Your task to perform on an android device: check data usage Image 0: 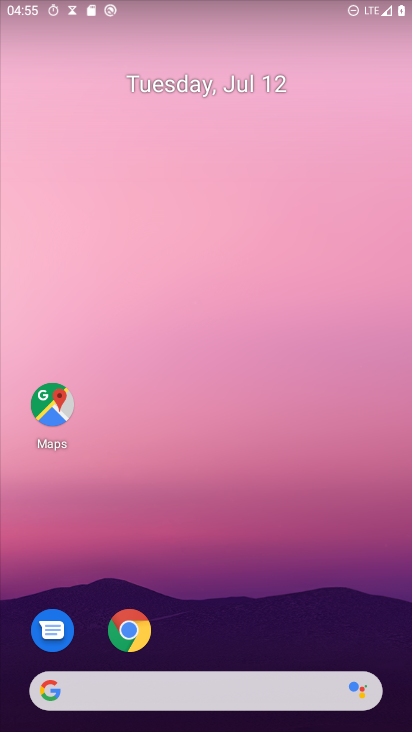
Step 0: drag from (310, 57) to (314, 16)
Your task to perform on an android device: check data usage Image 1: 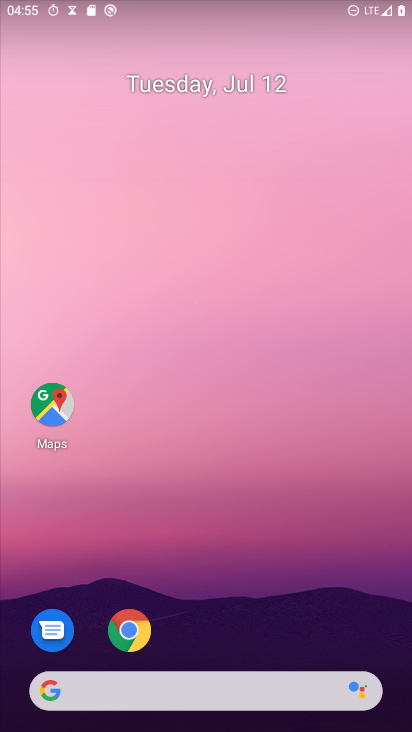
Step 1: drag from (265, 685) to (330, 61)
Your task to perform on an android device: check data usage Image 2: 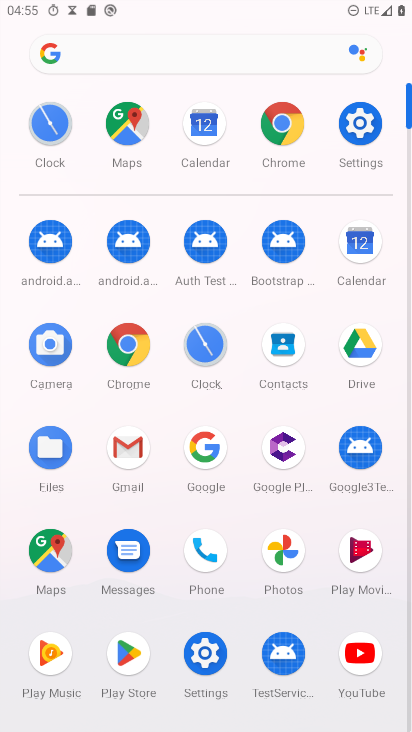
Step 2: click (357, 116)
Your task to perform on an android device: check data usage Image 3: 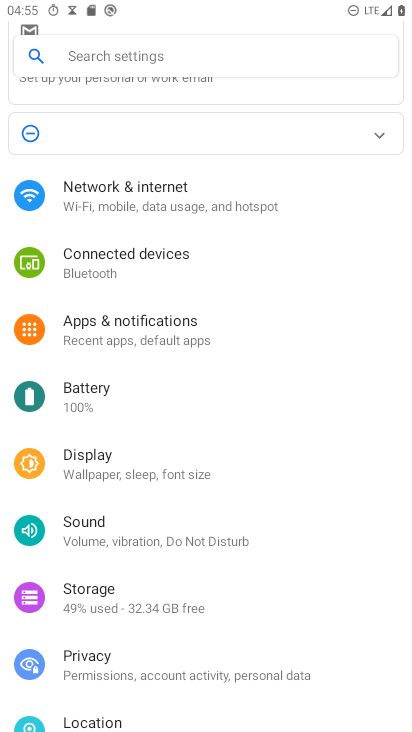
Step 3: click (188, 203)
Your task to perform on an android device: check data usage Image 4: 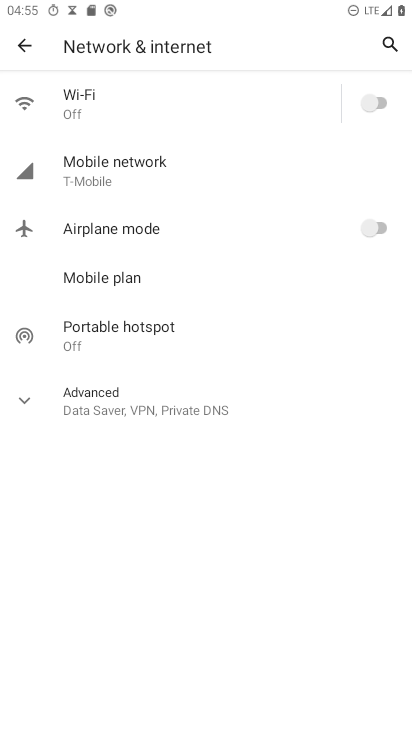
Step 4: click (145, 182)
Your task to perform on an android device: check data usage Image 5: 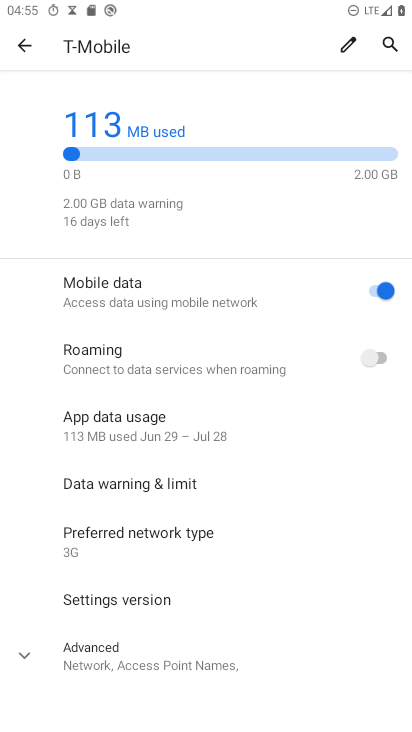
Step 5: task complete